Your task to perform on an android device: Go to Yahoo.com Image 0: 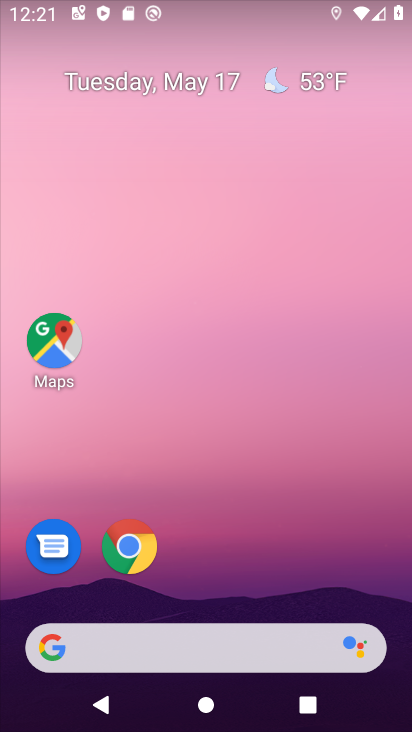
Step 0: click (128, 552)
Your task to perform on an android device: Go to Yahoo.com Image 1: 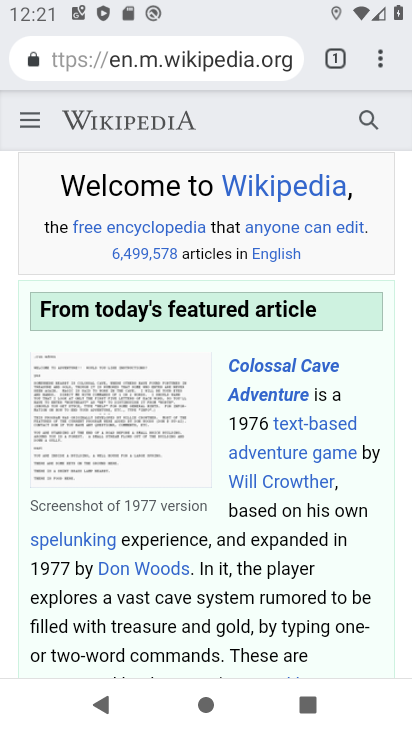
Step 1: press back button
Your task to perform on an android device: Go to Yahoo.com Image 2: 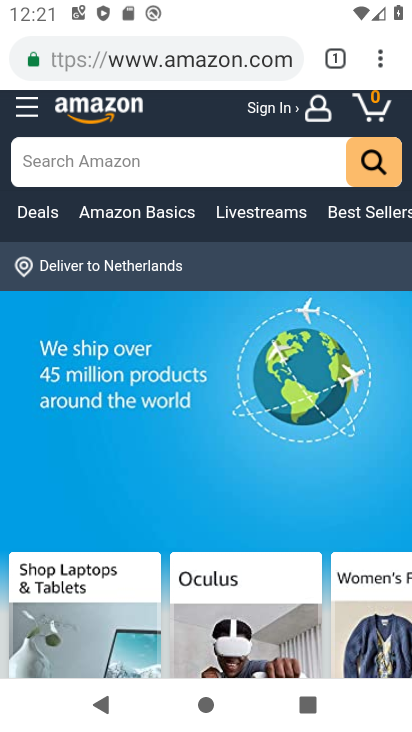
Step 2: press back button
Your task to perform on an android device: Go to Yahoo.com Image 3: 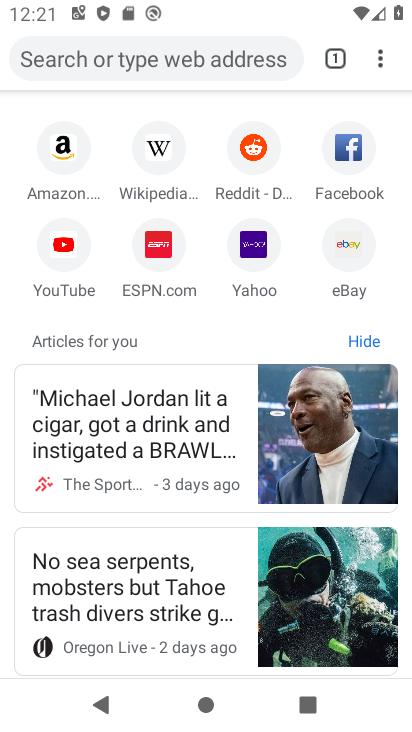
Step 3: click (254, 247)
Your task to perform on an android device: Go to Yahoo.com Image 4: 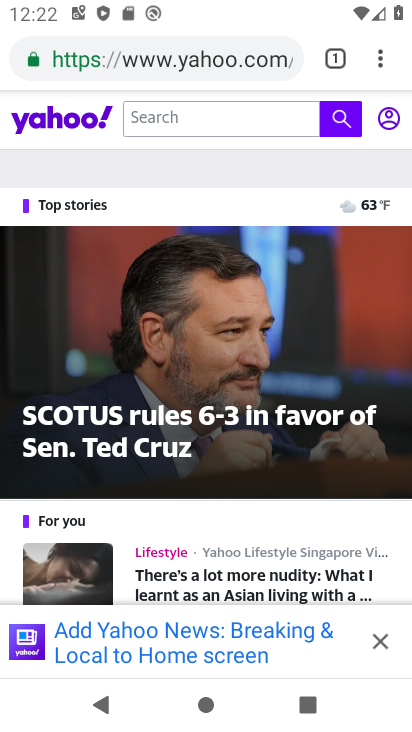
Step 4: task complete